Your task to perform on an android device: Set the phone to "Do not disturb". Image 0: 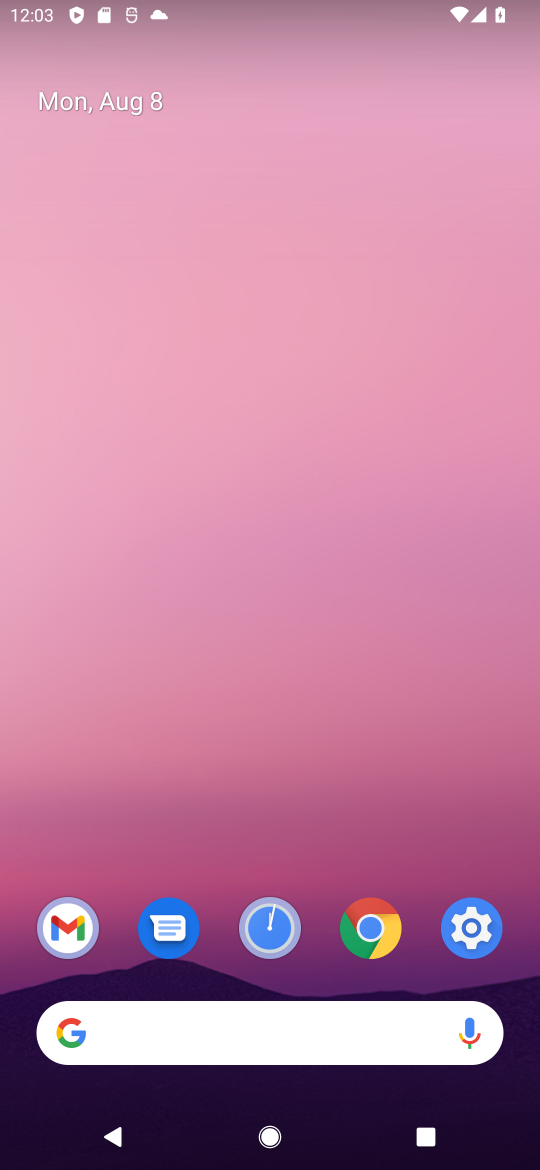
Step 0: click (489, 934)
Your task to perform on an android device: Set the phone to "Do not disturb". Image 1: 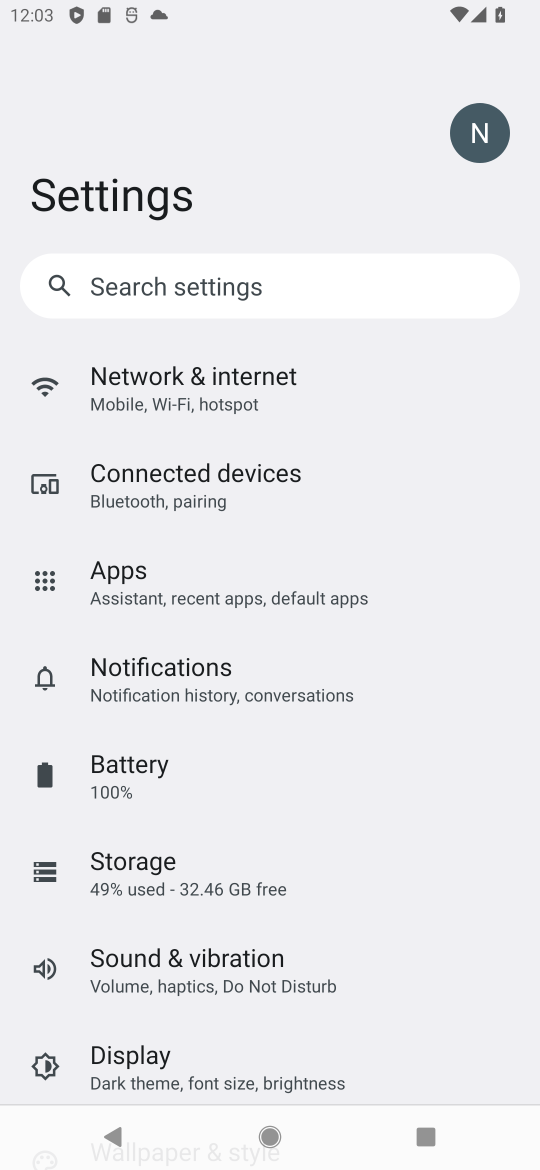
Step 1: click (194, 288)
Your task to perform on an android device: Set the phone to "Do not disturb". Image 2: 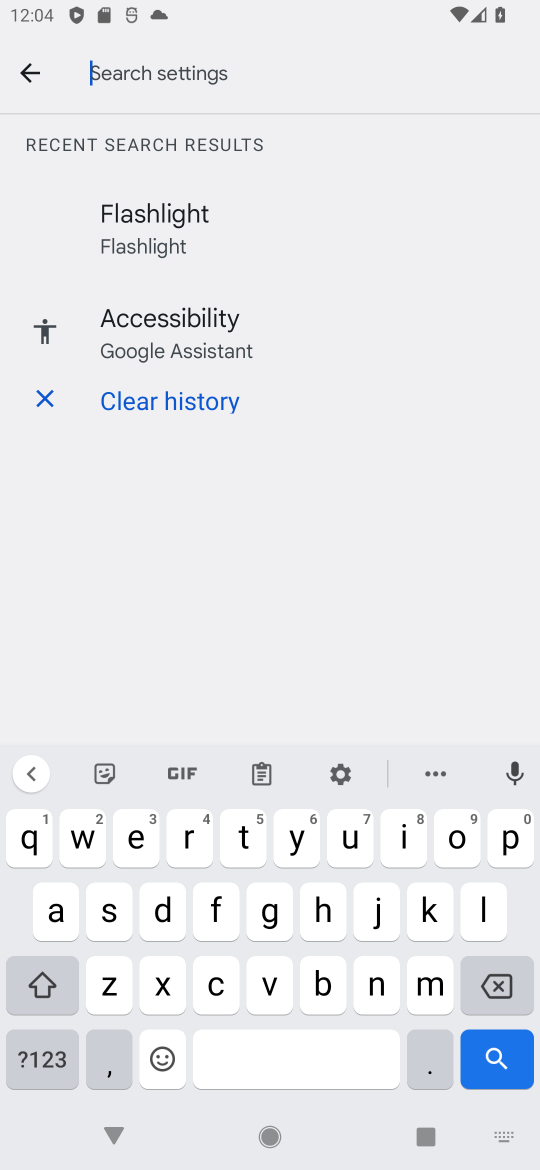
Step 2: click (161, 905)
Your task to perform on an android device: Set the phone to "Do not disturb". Image 3: 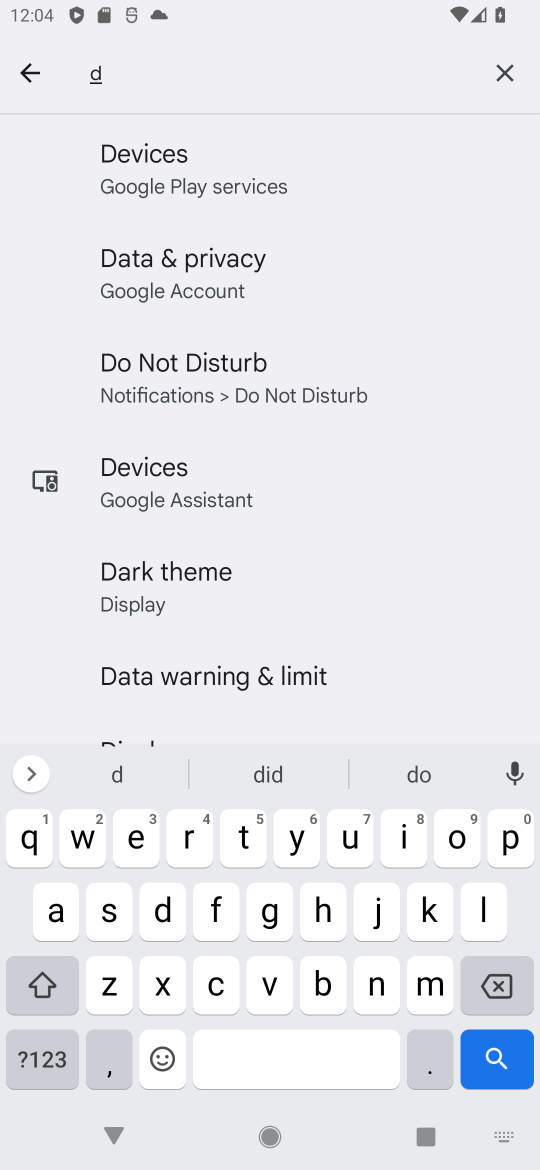
Step 3: click (211, 370)
Your task to perform on an android device: Set the phone to "Do not disturb". Image 4: 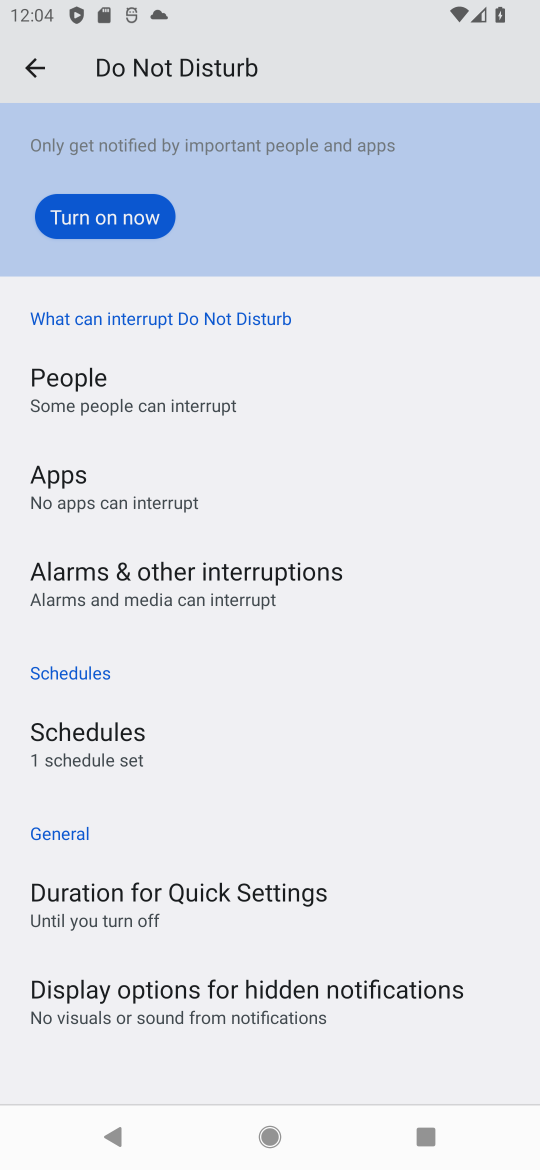
Step 4: click (100, 203)
Your task to perform on an android device: Set the phone to "Do not disturb". Image 5: 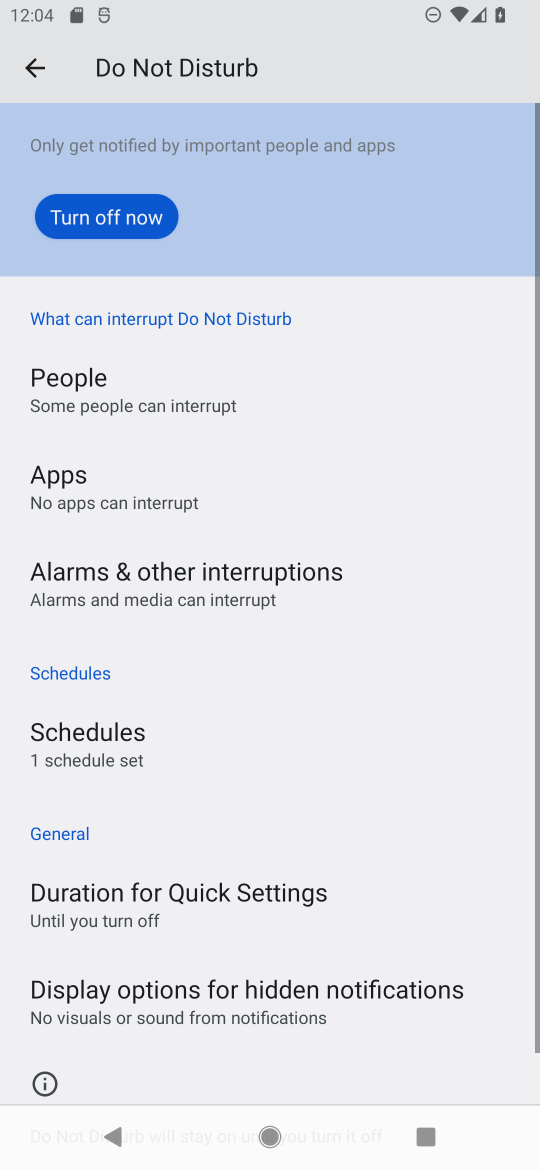
Step 5: task complete